Your task to perform on an android device: Search for logitech g903 on target, select the first entry, and add it to the cart. Image 0: 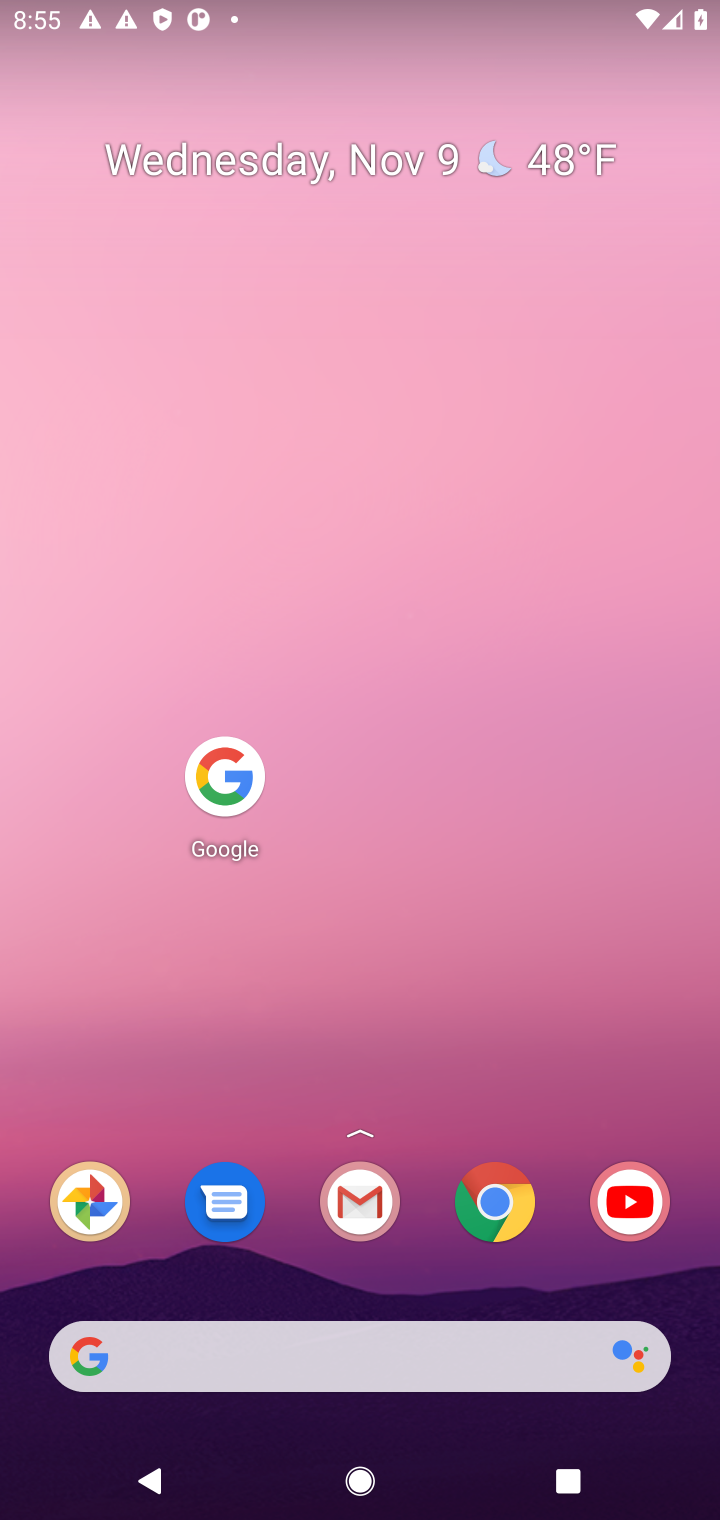
Step 0: click (219, 790)
Your task to perform on an android device: Search for logitech g903 on target, select the first entry, and add it to the cart. Image 1: 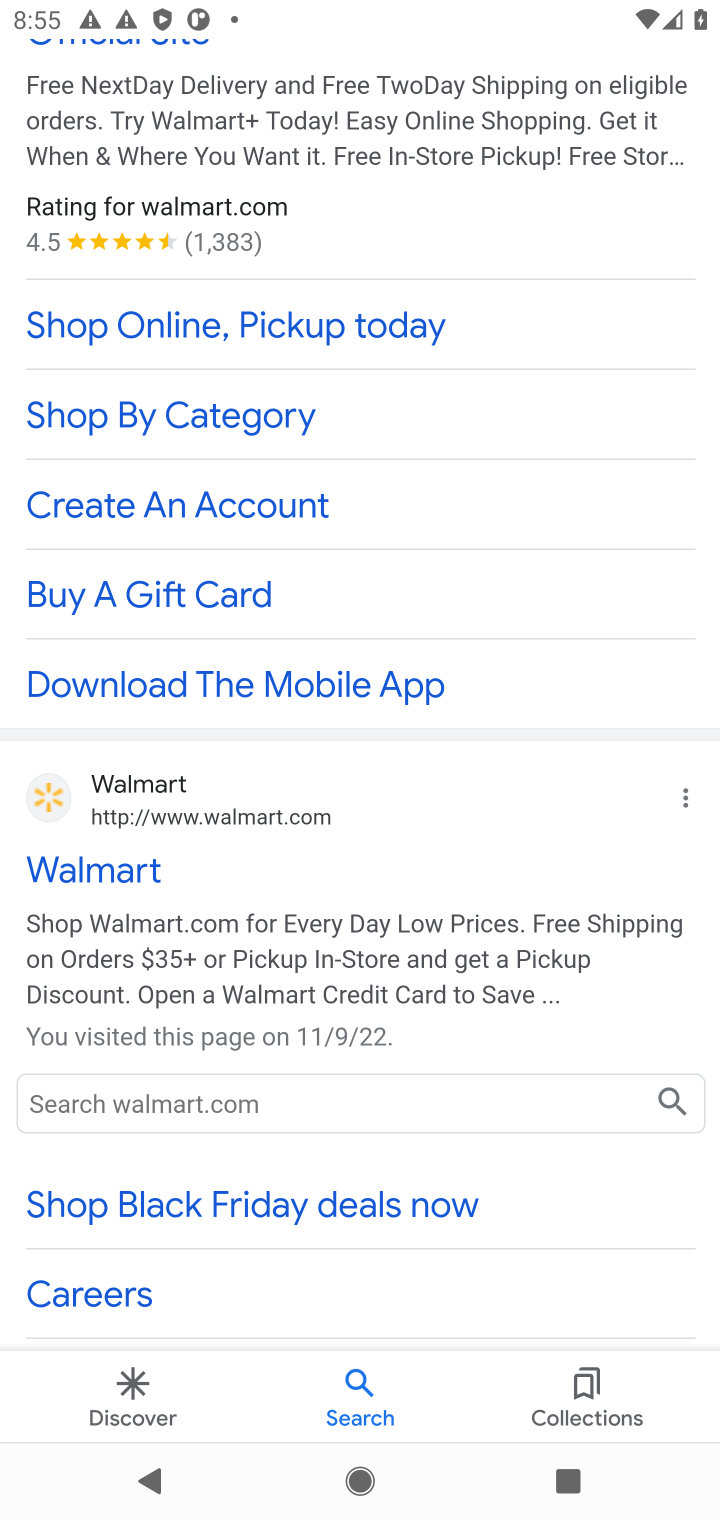
Step 1: drag from (532, 218) to (477, 1131)
Your task to perform on an android device: Search for logitech g903 on target, select the first entry, and add it to the cart. Image 2: 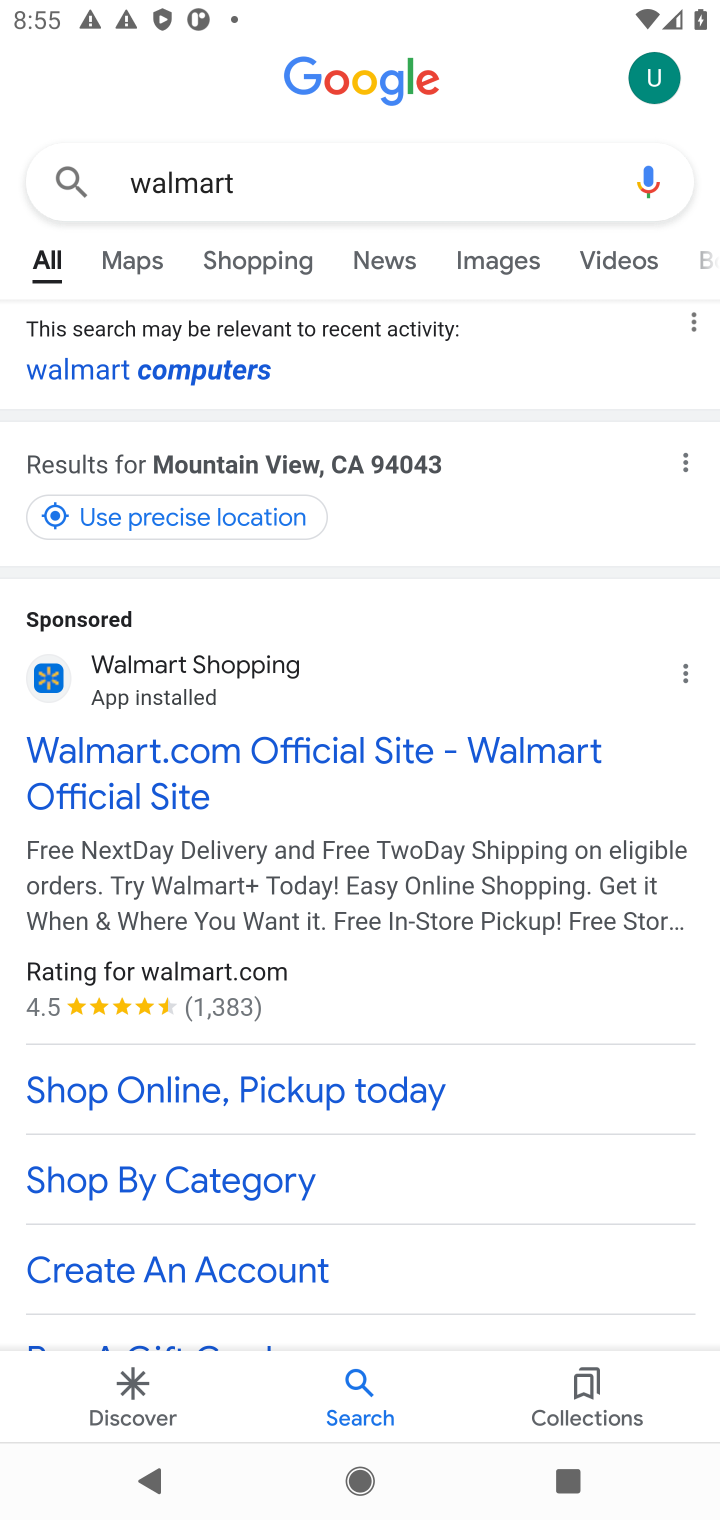
Step 2: click (309, 183)
Your task to perform on an android device: Search for logitech g903 on target, select the first entry, and add it to the cart. Image 3: 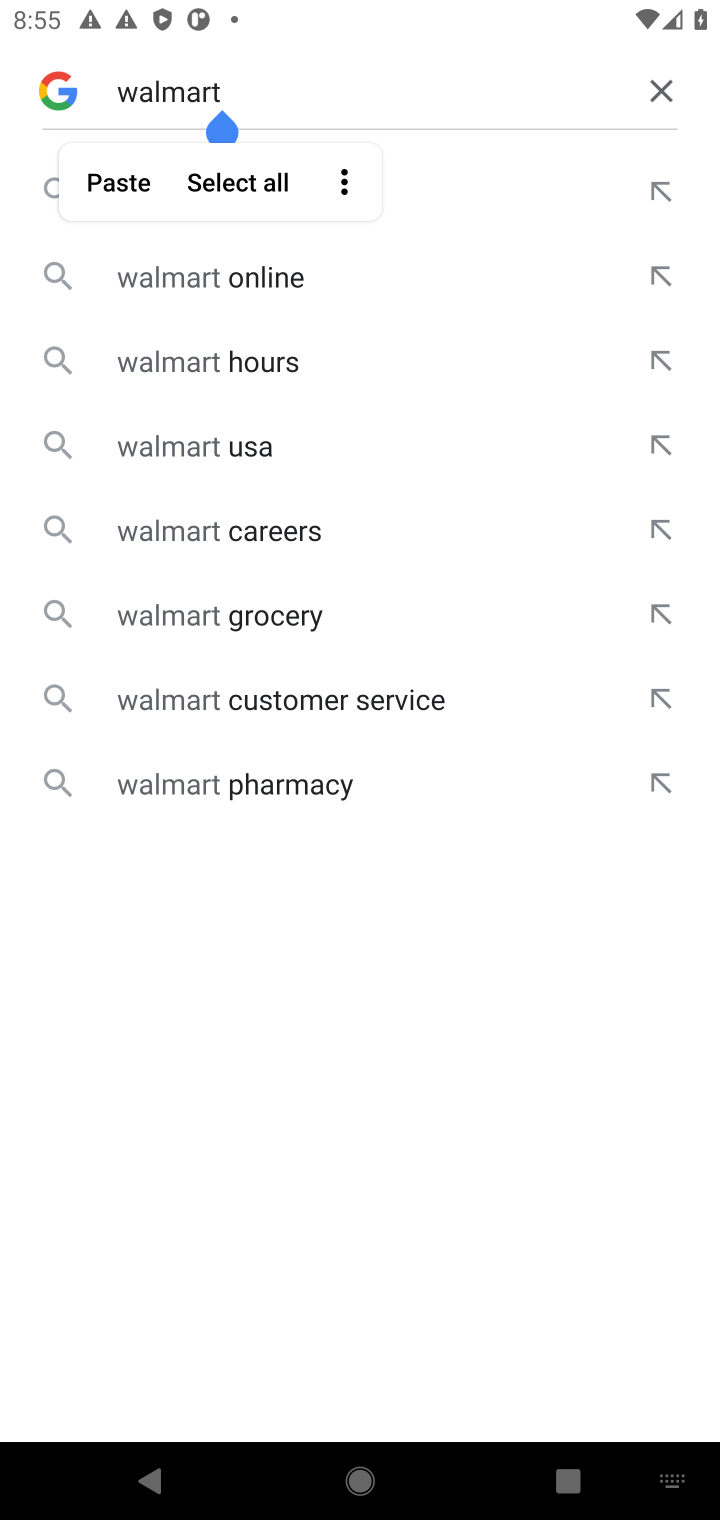
Step 3: click (664, 82)
Your task to perform on an android device: Search for logitech g903 on target, select the first entry, and add it to the cart. Image 4: 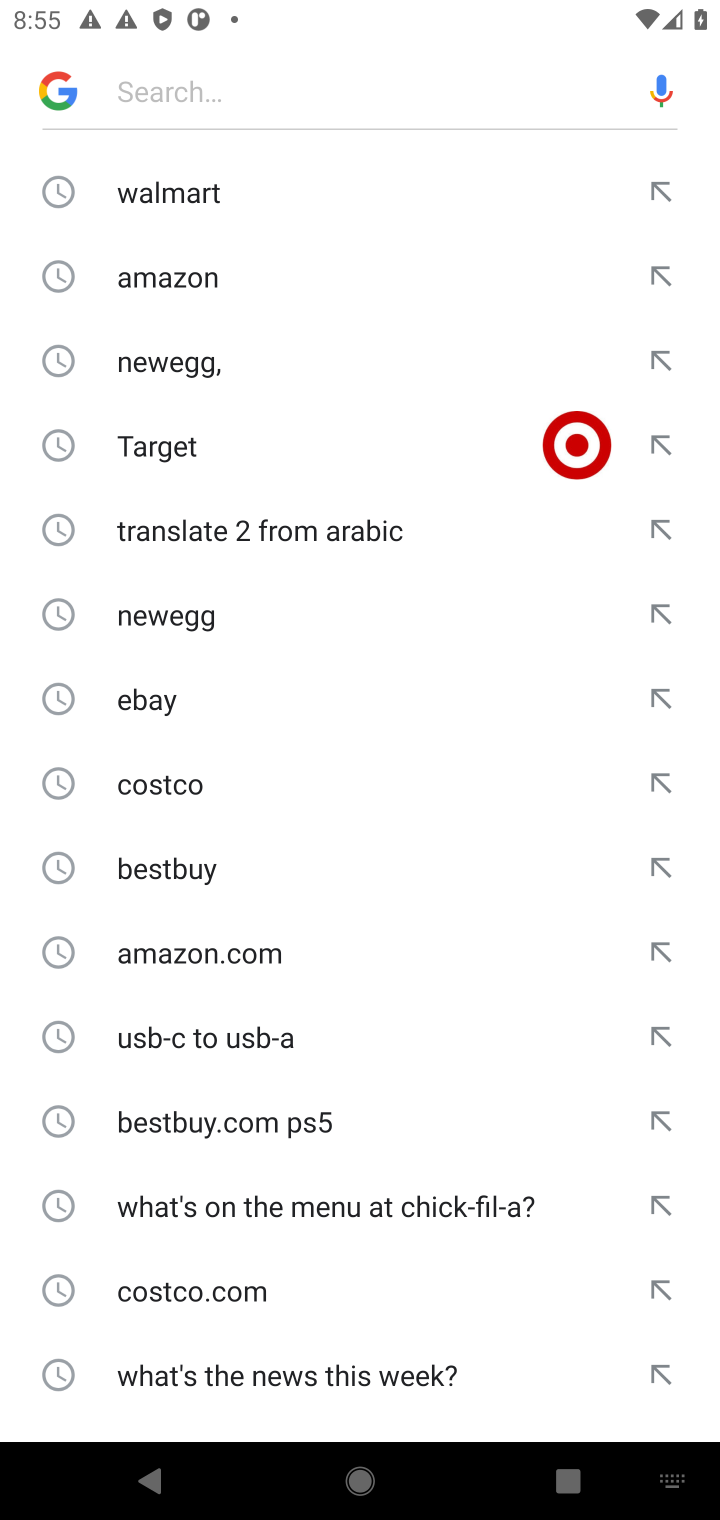
Step 4: click (173, 442)
Your task to perform on an android device: Search for logitech g903 on target, select the first entry, and add it to the cart. Image 5: 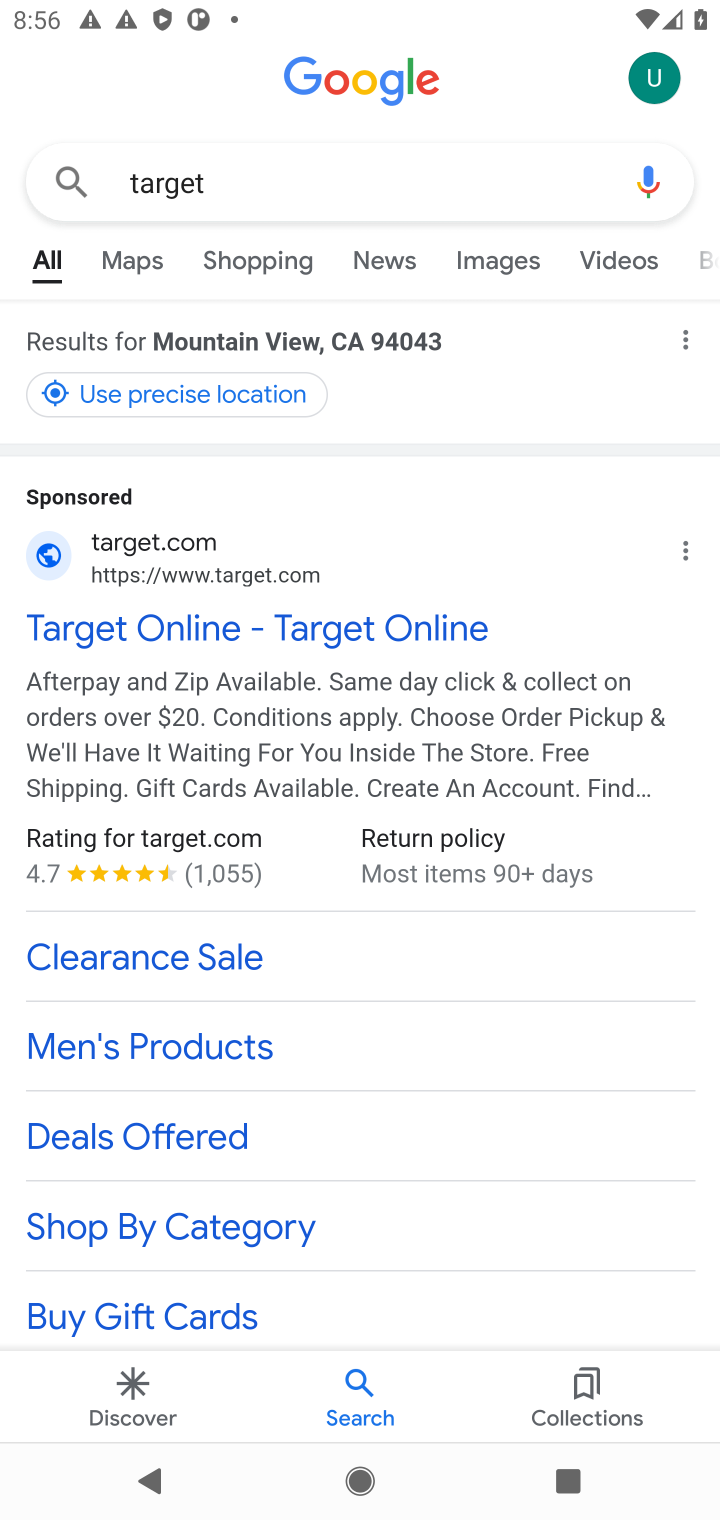
Step 5: drag from (299, 1278) to (550, 402)
Your task to perform on an android device: Search for logitech g903 on target, select the first entry, and add it to the cart. Image 6: 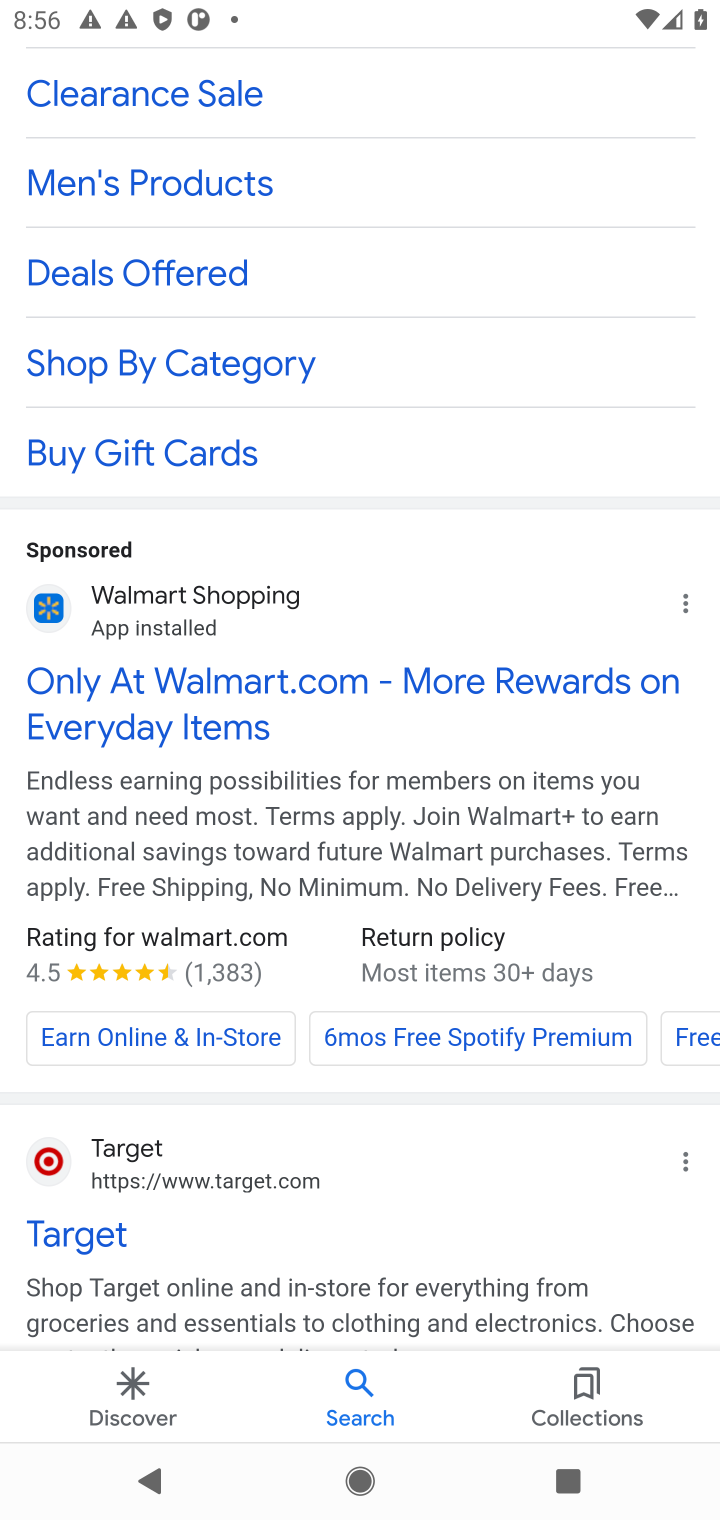
Step 6: click (67, 1235)
Your task to perform on an android device: Search for logitech g903 on target, select the first entry, and add it to the cart. Image 7: 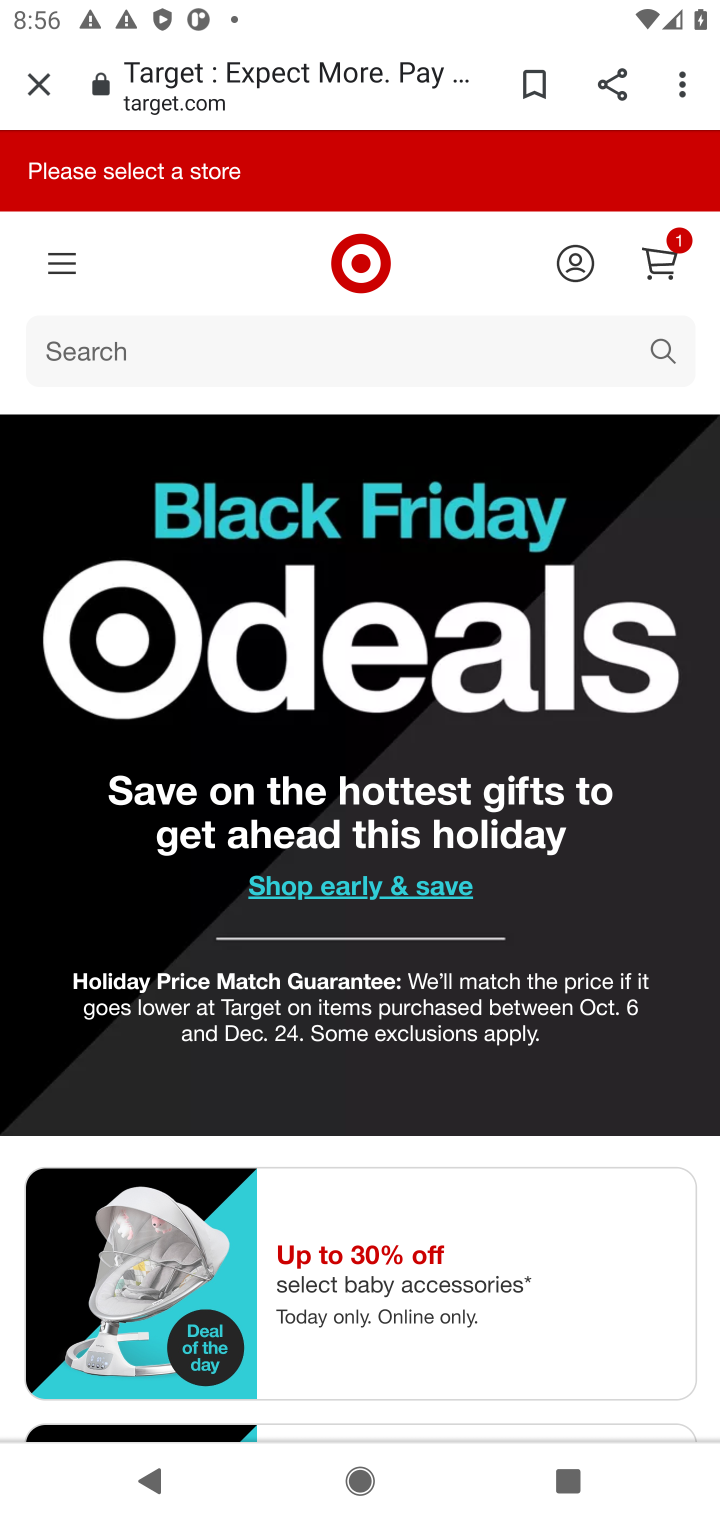
Step 7: click (217, 334)
Your task to perform on an android device: Search for logitech g903 on target, select the first entry, and add it to the cart. Image 8: 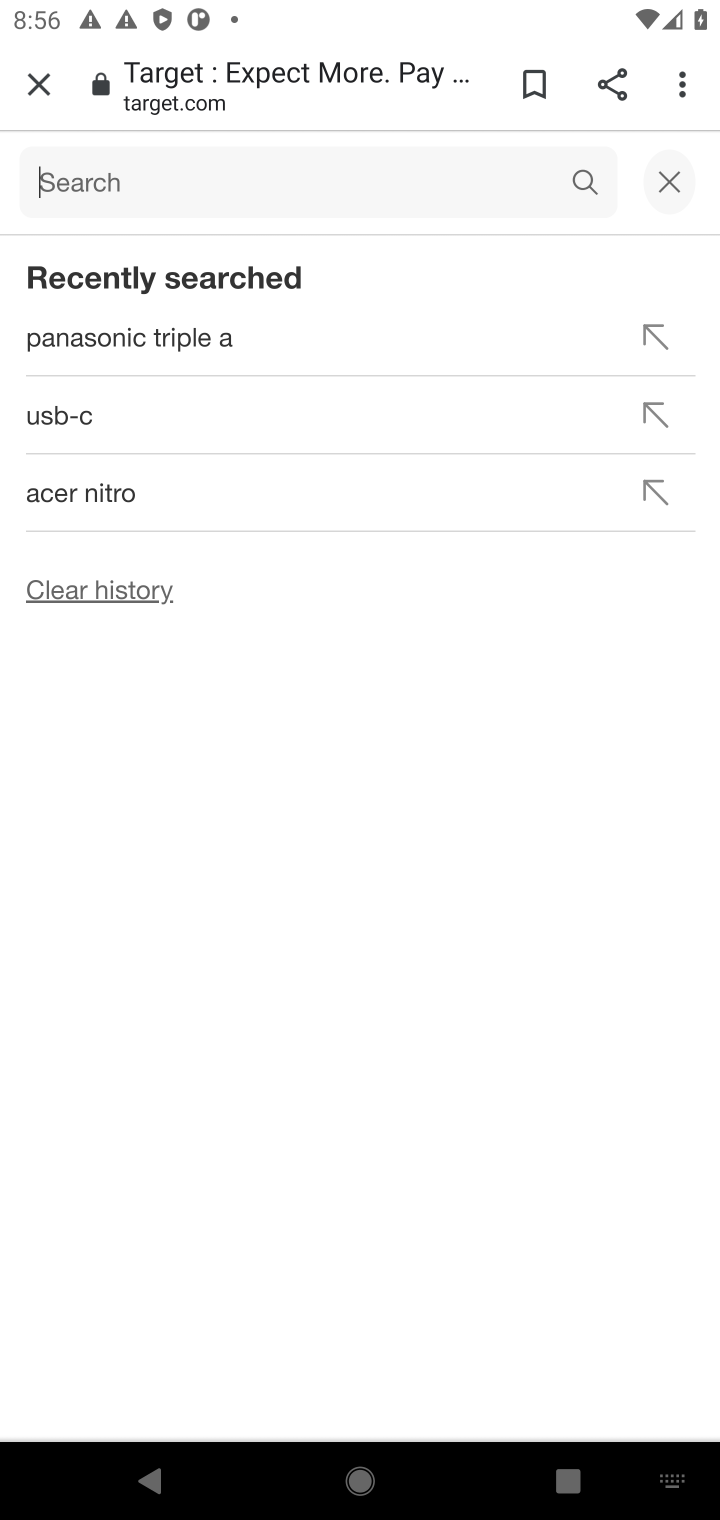
Step 8: type "logitech g903"
Your task to perform on an android device: Search for logitech g903 on target, select the first entry, and add it to the cart. Image 9: 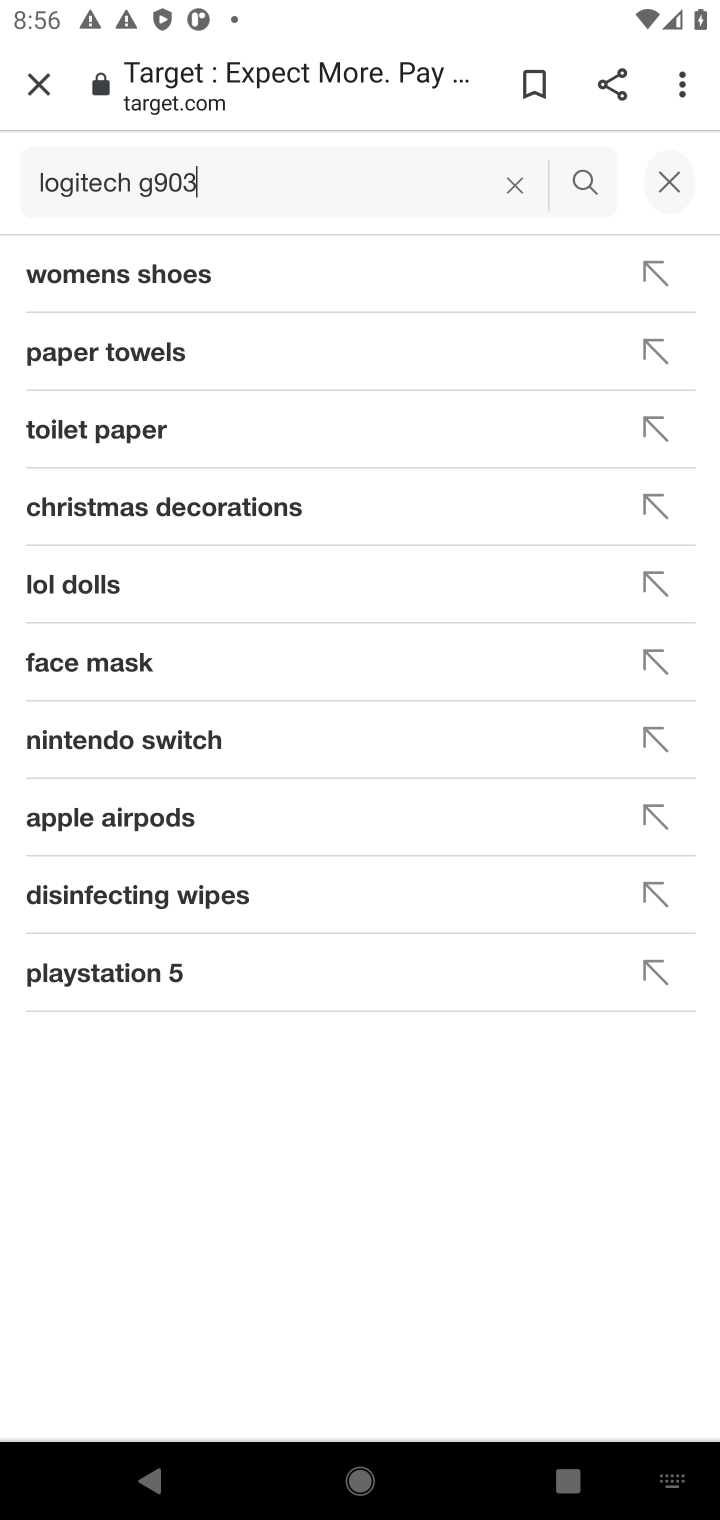
Step 9: press enter
Your task to perform on an android device: Search for logitech g903 on target, select the first entry, and add it to the cart. Image 10: 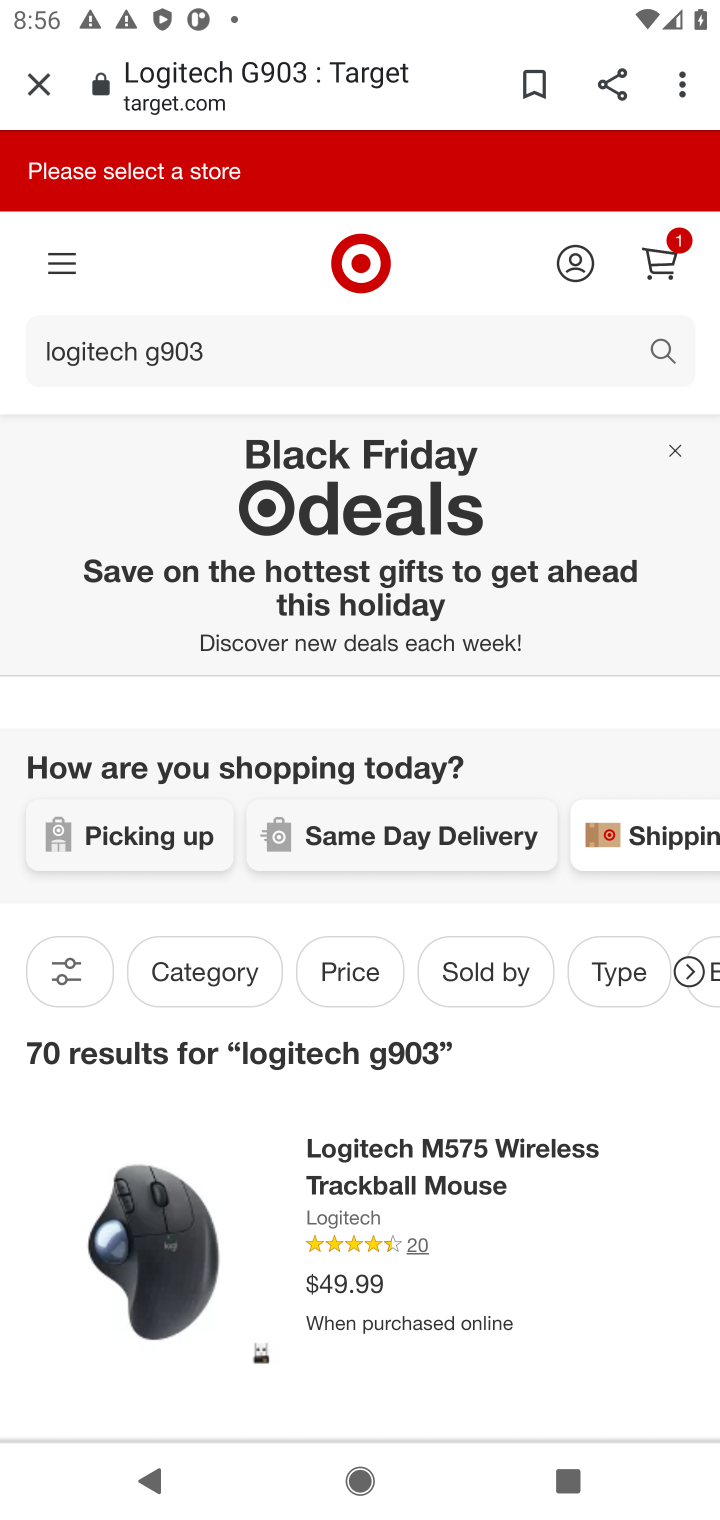
Step 10: task complete